Your task to perform on an android device: change notification settings in the gmail app Image 0: 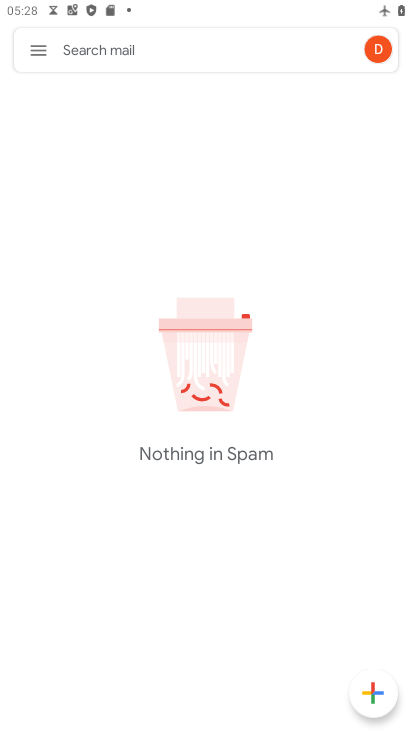
Step 0: press home button
Your task to perform on an android device: change notification settings in the gmail app Image 1: 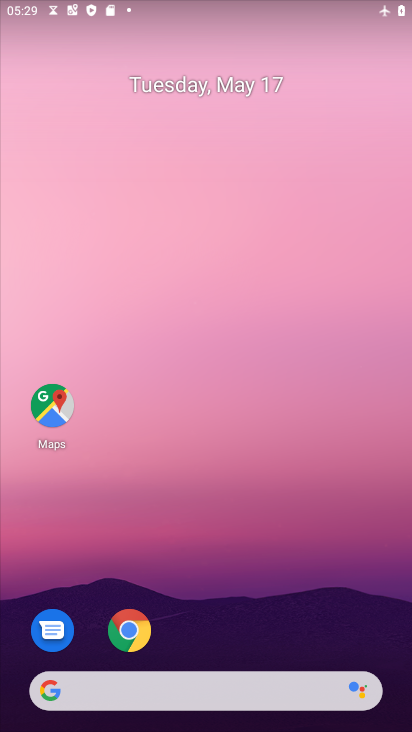
Step 1: drag from (314, 627) to (364, 203)
Your task to perform on an android device: change notification settings in the gmail app Image 2: 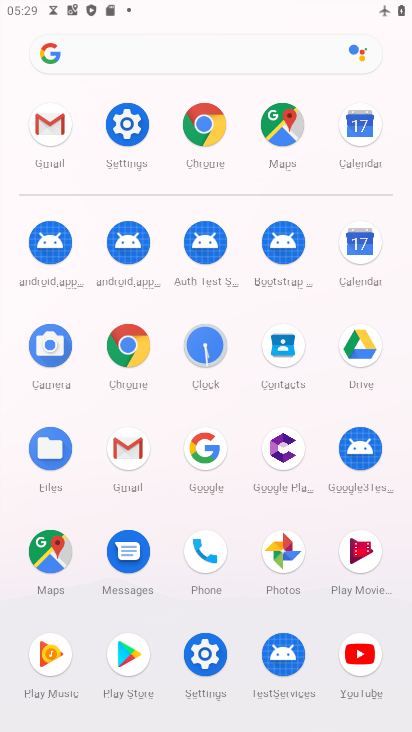
Step 2: click (40, 142)
Your task to perform on an android device: change notification settings in the gmail app Image 3: 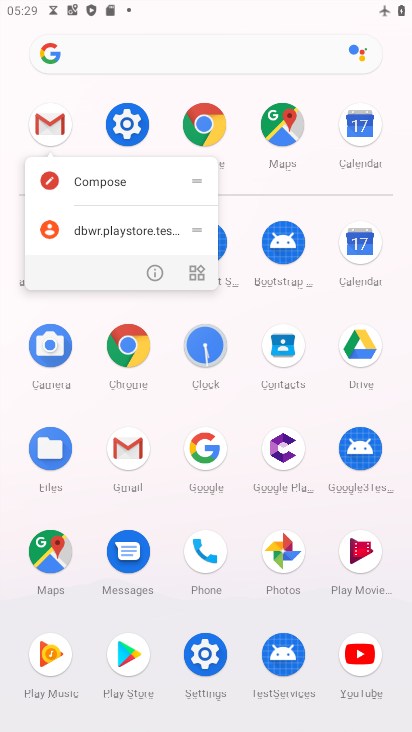
Step 3: click (159, 279)
Your task to perform on an android device: change notification settings in the gmail app Image 4: 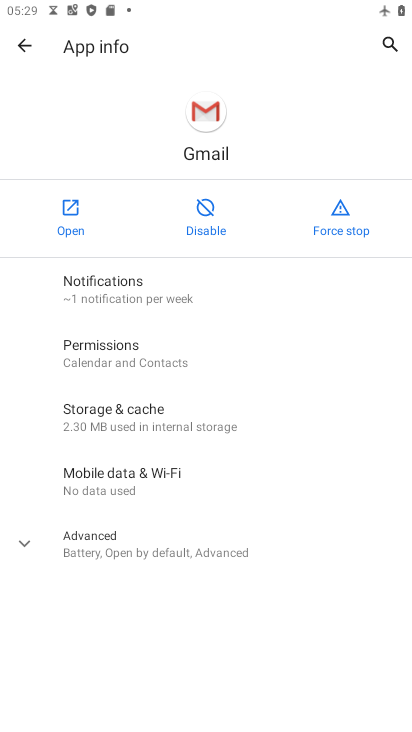
Step 4: click (159, 293)
Your task to perform on an android device: change notification settings in the gmail app Image 5: 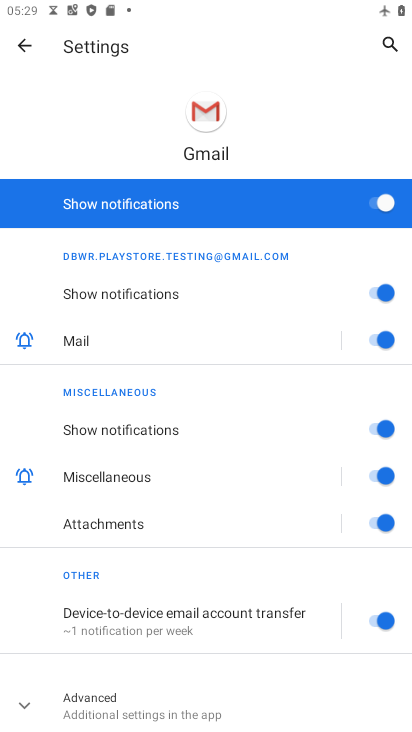
Step 5: click (400, 202)
Your task to perform on an android device: change notification settings in the gmail app Image 6: 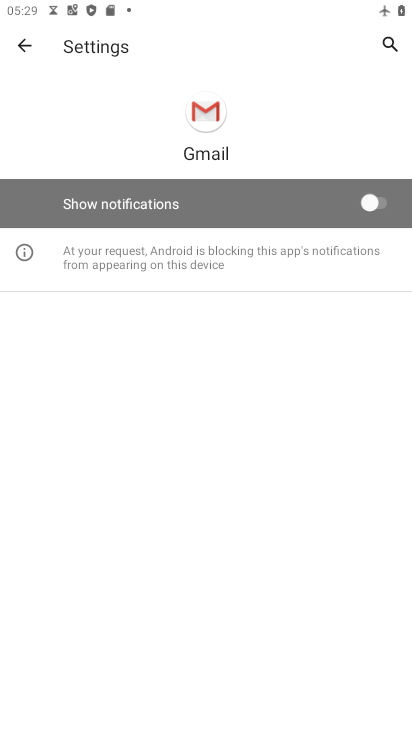
Step 6: task complete